Your task to perform on an android device: Do I have any events today? Image 0: 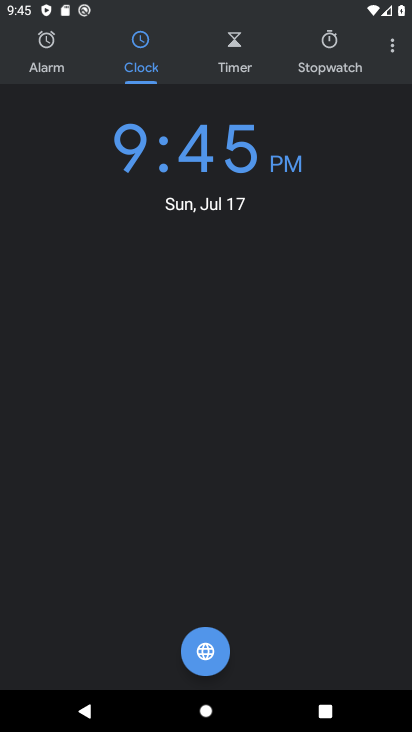
Step 0: press home button
Your task to perform on an android device: Do I have any events today? Image 1: 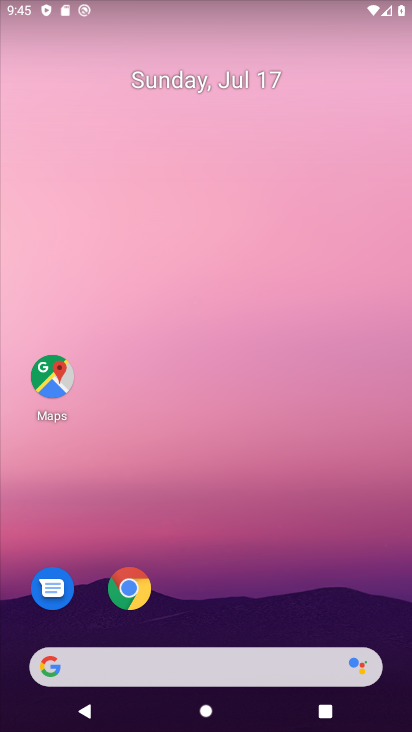
Step 1: drag from (206, 285) to (183, 62)
Your task to perform on an android device: Do I have any events today? Image 2: 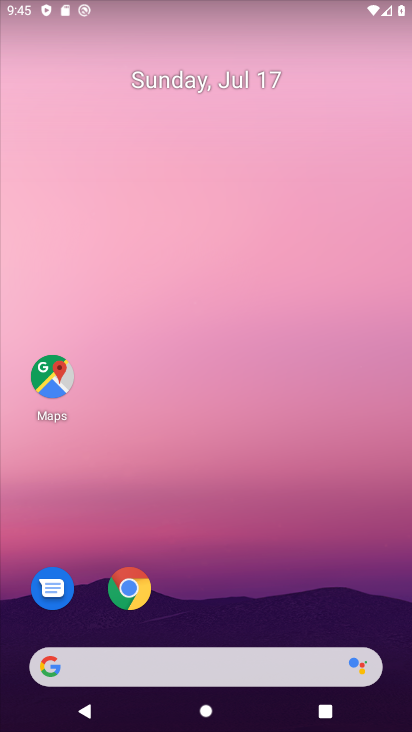
Step 2: drag from (233, 641) to (306, 47)
Your task to perform on an android device: Do I have any events today? Image 3: 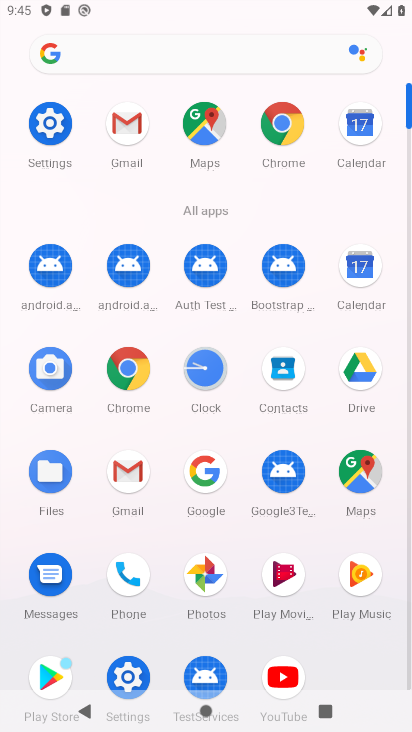
Step 3: click (370, 129)
Your task to perform on an android device: Do I have any events today? Image 4: 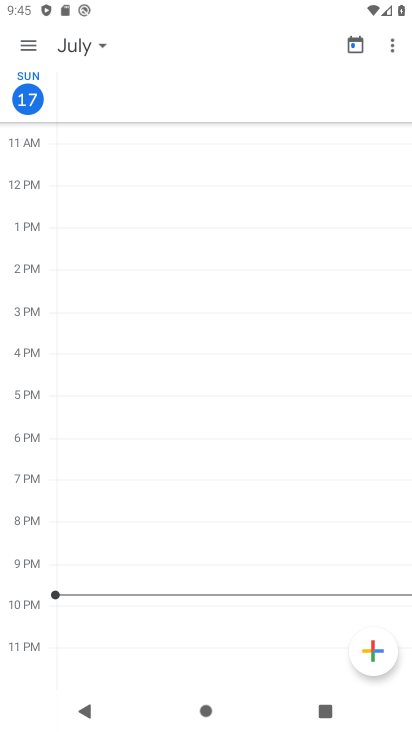
Step 4: click (22, 84)
Your task to perform on an android device: Do I have any events today? Image 5: 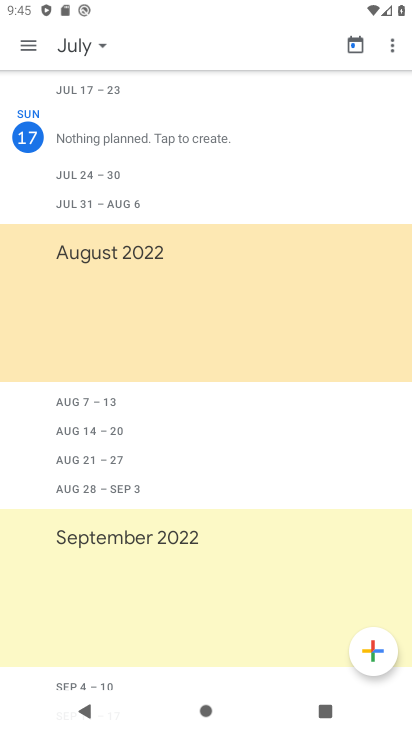
Step 5: task complete